Your task to perform on an android device: Open calendar and show me the first week of next month Image 0: 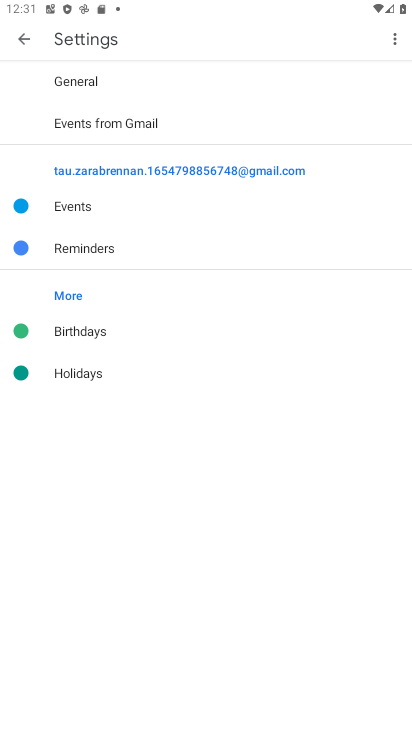
Step 0: press home button
Your task to perform on an android device: Open calendar and show me the first week of next month Image 1: 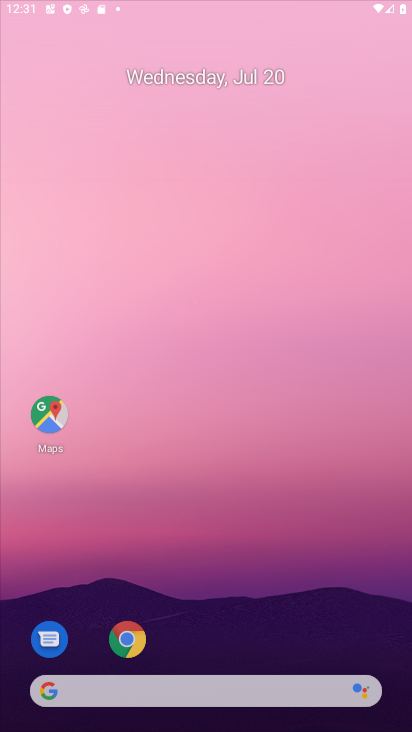
Step 1: drag from (288, 488) to (241, 82)
Your task to perform on an android device: Open calendar and show me the first week of next month Image 2: 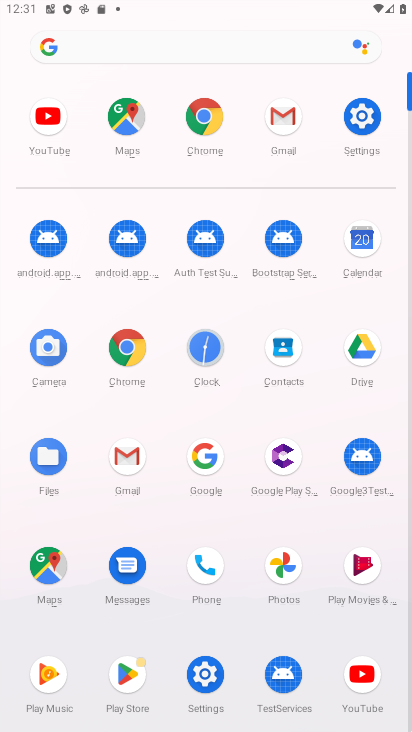
Step 2: click (360, 245)
Your task to perform on an android device: Open calendar and show me the first week of next month Image 3: 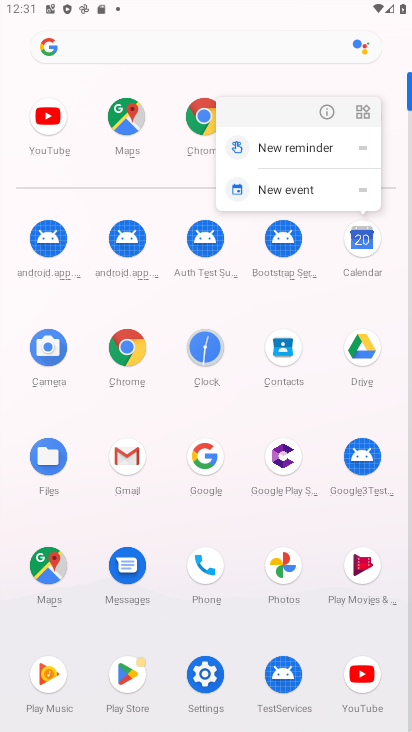
Step 3: click (360, 245)
Your task to perform on an android device: Open calendar and show me the first week of next month Image 4: 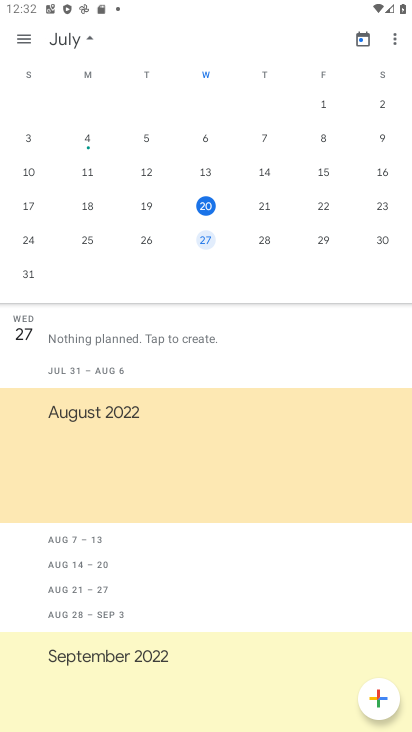
Step 4: task complete